Your task to perform on an android device: turn off airplane mode Image 0: 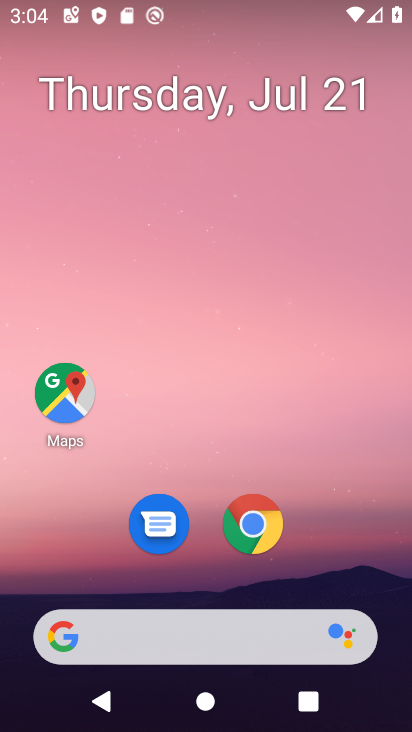
Step 0: press home button
Your task to perform on an android device: turn off airplane mode Image 1: 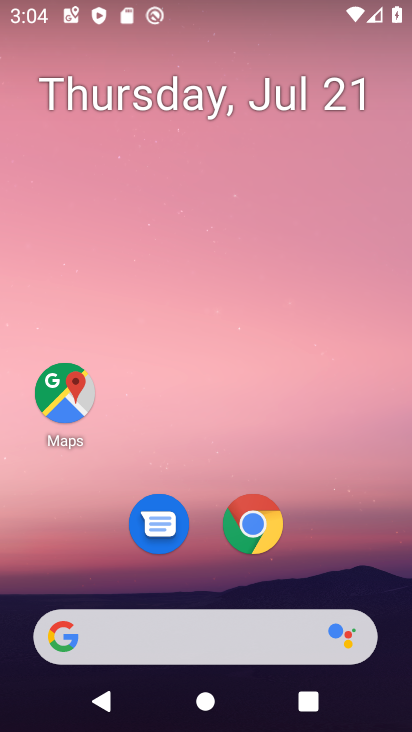
Step 1: drag from (183, 627) to (275, 57)
Your task to perform on an android device: turn off airplane mode Image 2: 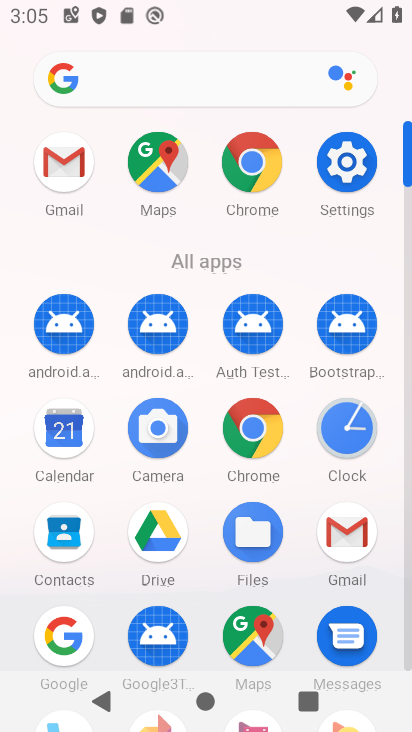
Step 2: click (335, 169)
Your task to perform on an android device: turn off airplane mode Image 3: 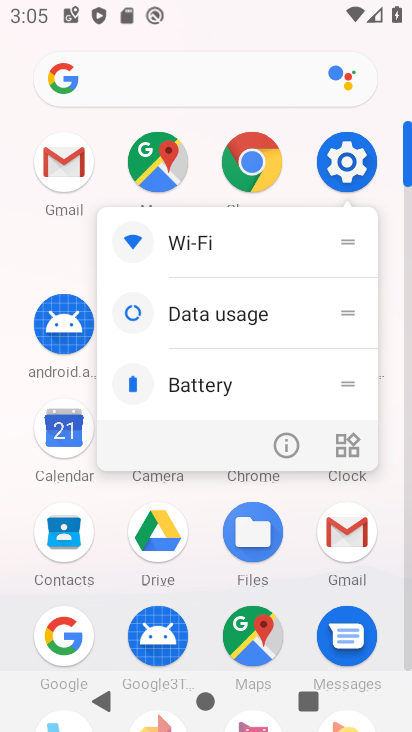
Step 3: click (360, 154)
Your task to perform on an android device: turn off airplane mode Image 4: 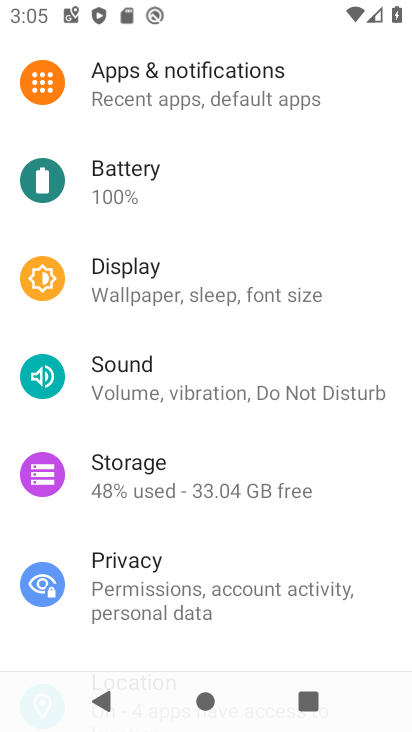
Step 4: drag from (306, 116) to (211, 603)
Your task to perform on an android device: turn off airplane mode Image 5: 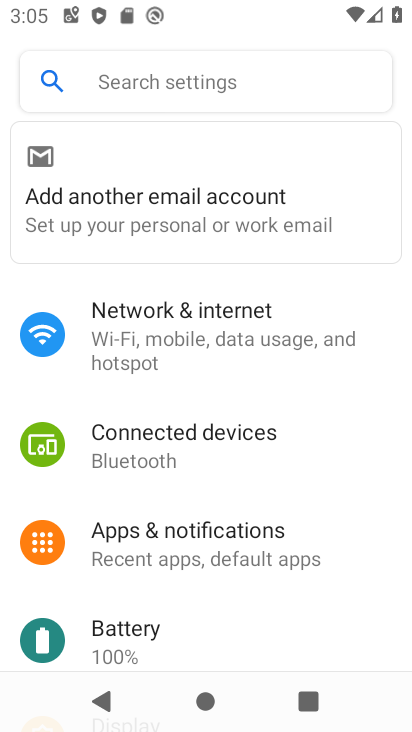
Step 5: click (219, 317)
Your task to perform on an android device: turn off airplane mode Image 6: 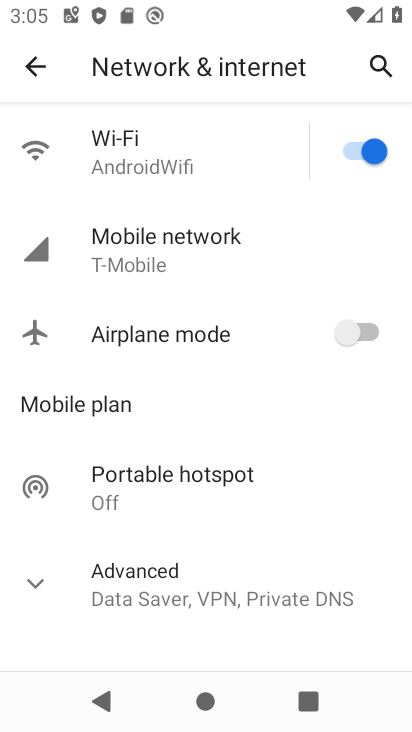
Step 6: task complete